Your task to perform on an android device: delete location history Image 0: 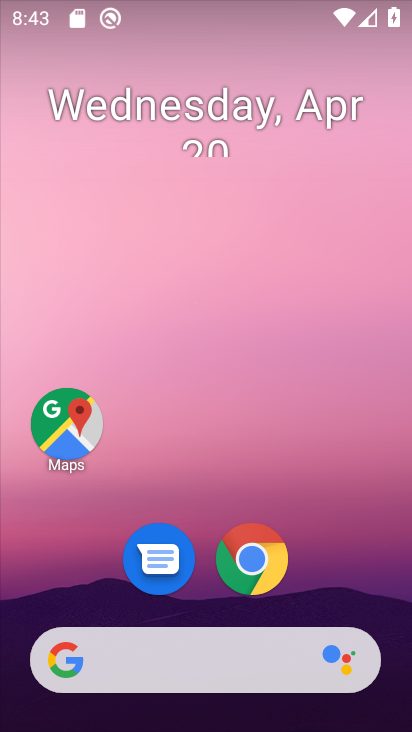
Step 0: click (68, 427)
Your task to perform on an android device: delete location history Image 1: 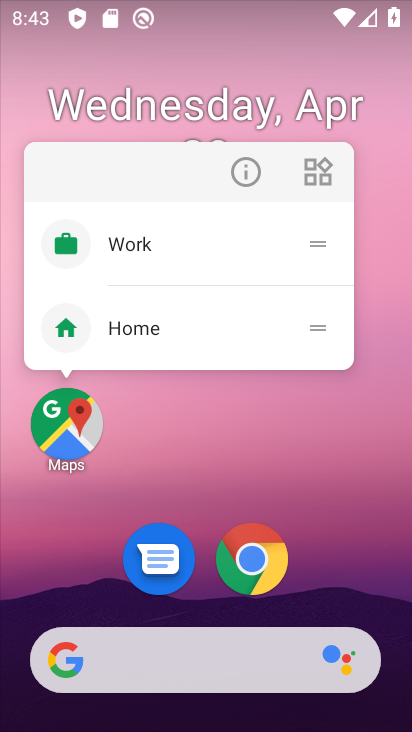
Step 1: click (68, 427)
Your task to perform on an android device: delete location history Image 2: 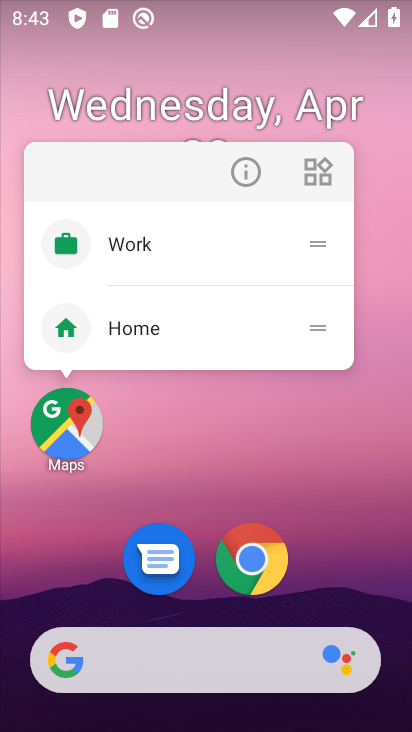
Step 2: click (68, 442)
Your task to perform on an android device: delete location history Image 3: 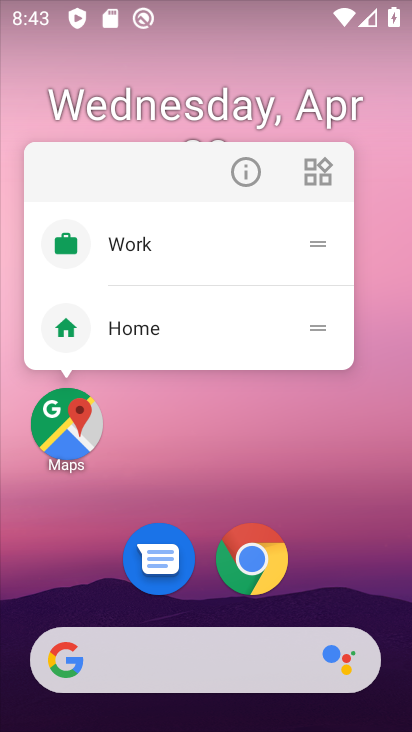
Step 3: click (67, 445)
Your task to perform on an android device: delete location history Image 4: 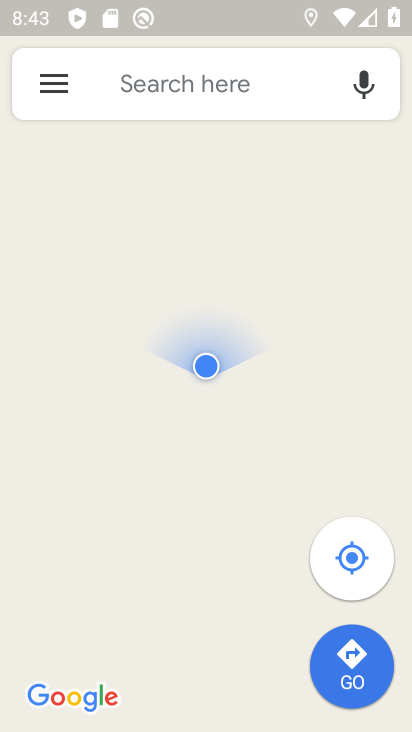
Step 4: click (51, 90)
Your task to perform on an android device: delete location history Image 5: 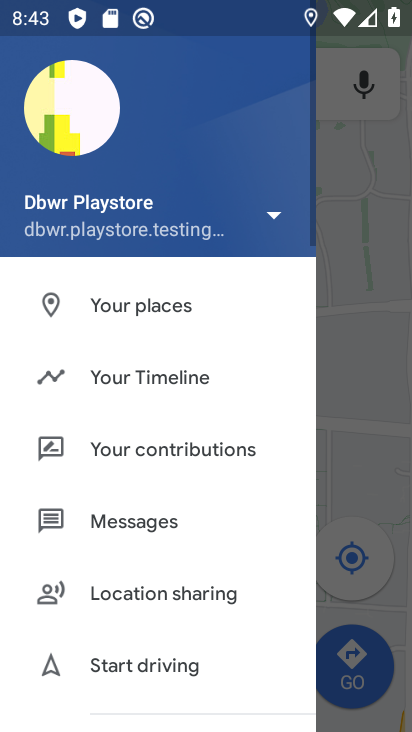
Step 5: click (162, 385)
Your task to perform on an android device: delete location history Image 6: 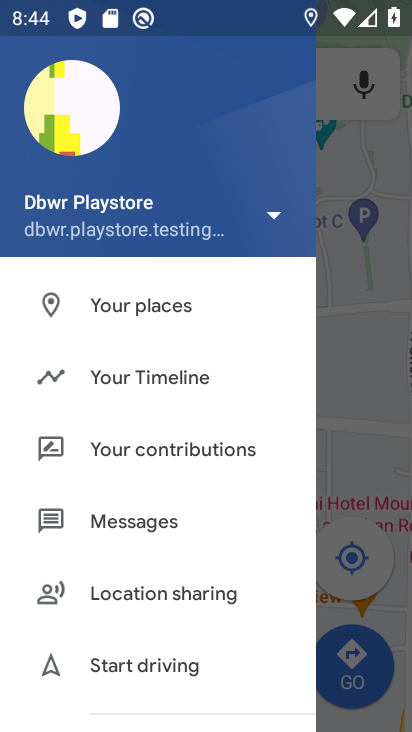
Step 6: click (149, 381)
Your task to perform on an android device: delete location history Image 7: 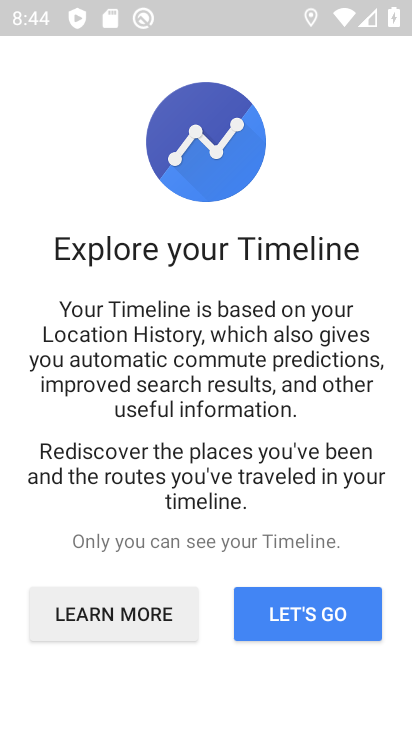
Step 7: click (291, 621)
Your task to perform on an android device: delete location history Image 8: 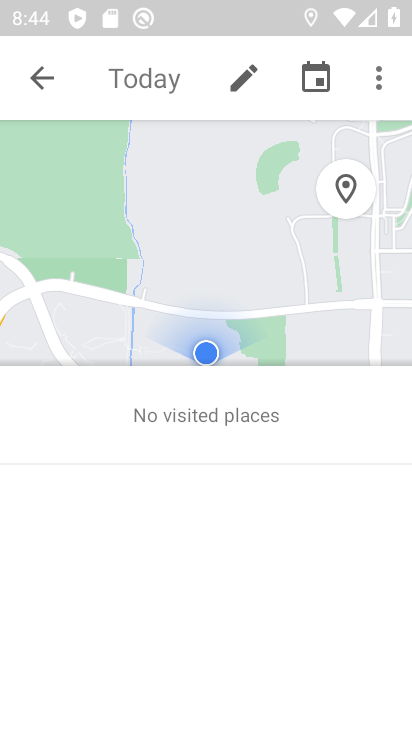
Step 8: click (387, 81)
Your task to perform on an android device: delete location history Image 9: 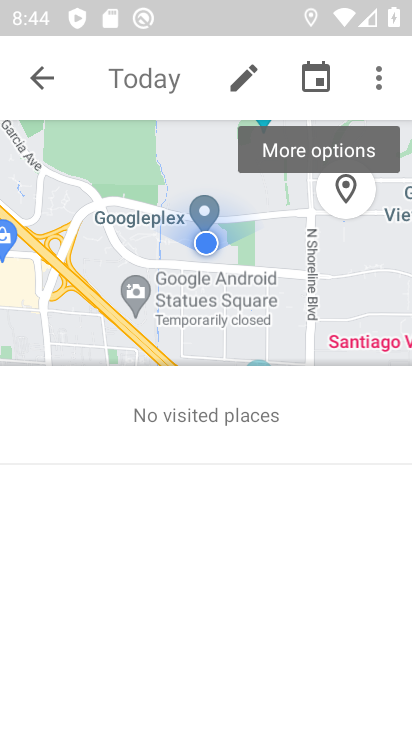
Step 9: click (377, 85)
Your task to perform on an android device: delete location history Image 10: 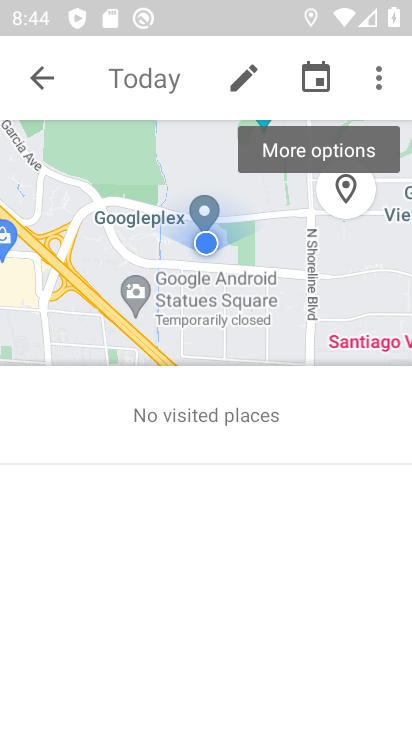
Step 10: click (377, 85)
Your task to perform on an android device: delete location history Image 11: 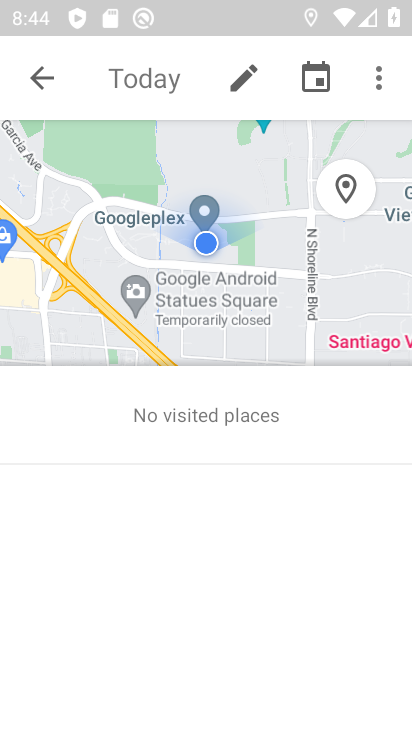
Step 11: click (377, 83)
Your task to perform on an android device: delete location history Image 12: 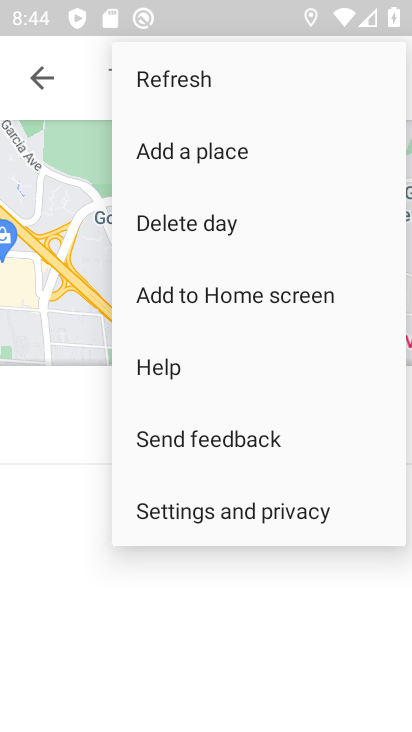
Step 12: click (253, 512)
Your task to perform on an android device: delete location history Image 13: 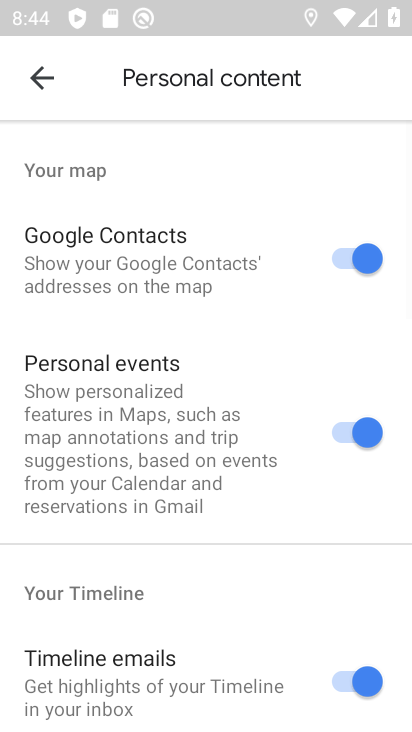
Step 13: drag from (201, 626) to (218, 229)
Your task to perform on an android device: delete location history Image 14: 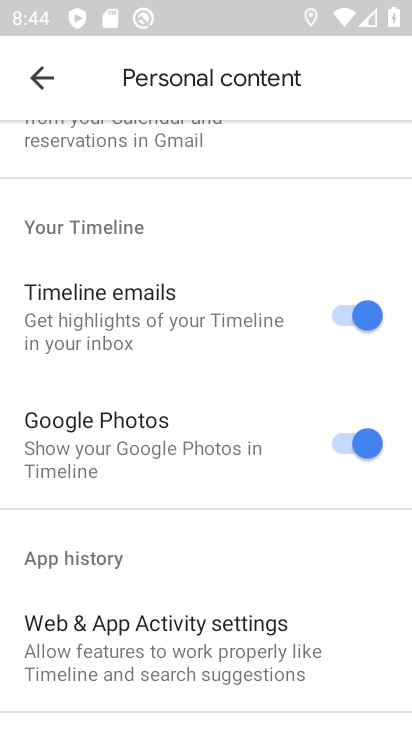
Step 14: drag from (220, 554) to (229, 233)
Your task to perform on an android device: delete location history Image 15: 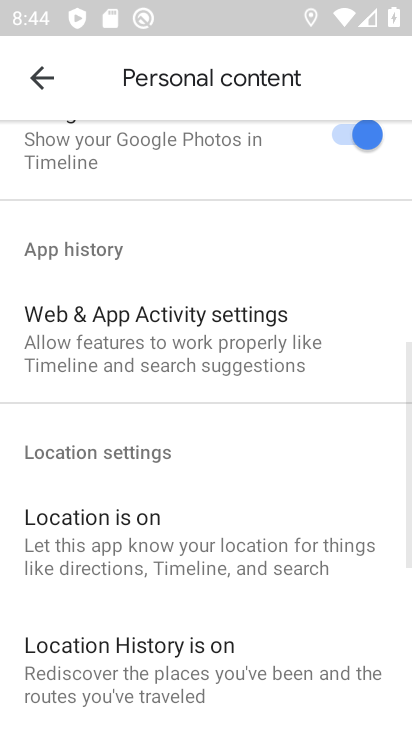
Step 15: drag from (216, 637) to (234, 355)
Your task to perform on an android device: delete location history Image 16: 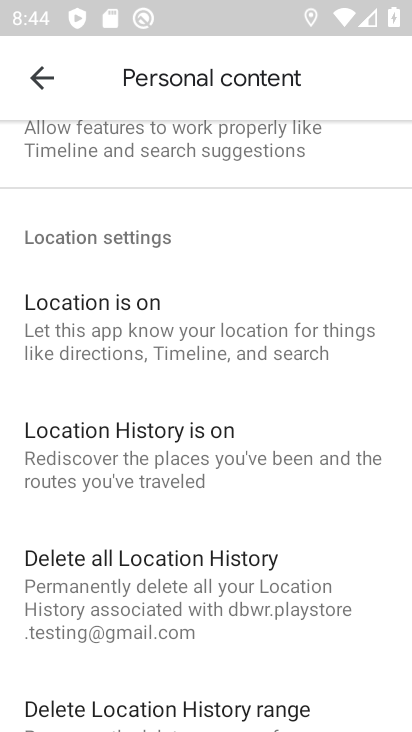
Step 16: click (234, 622)
Your task to perform on an android device: delete location history Image 17: 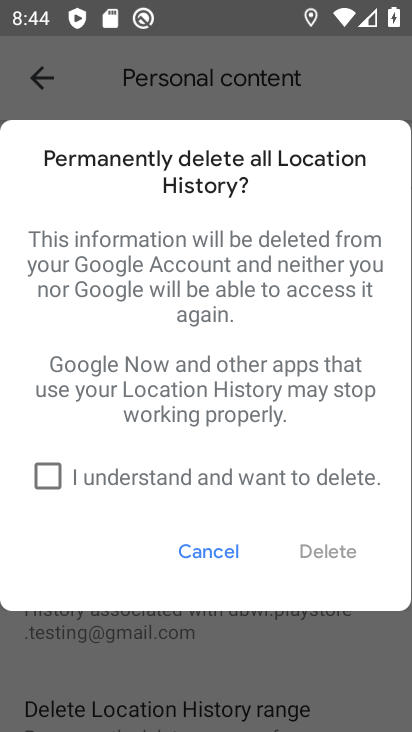
Step 17: click (51, 477)
Your task to perform on an android device: delete location history Image 18: 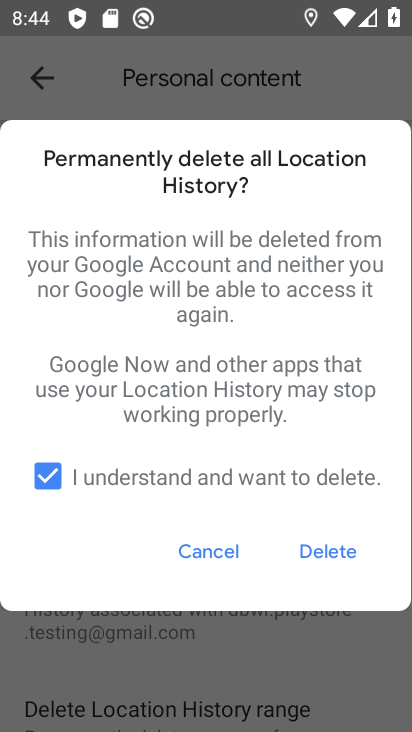
Step 18: click (306, 554)
Your task to perform on an android device: delete location history Image 19: 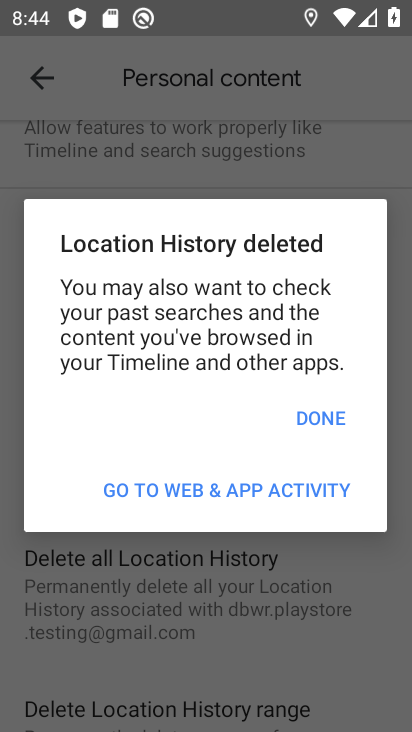
Step 19: click (310, 422)
Your task to perform on an android device: delete location history Image 20: 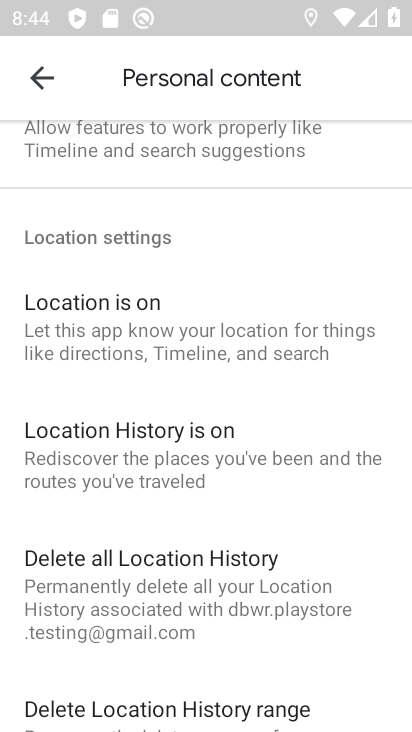
Step 20: task complete